Your task to perform on an android device: Find coffee shops on Maps Image 0: 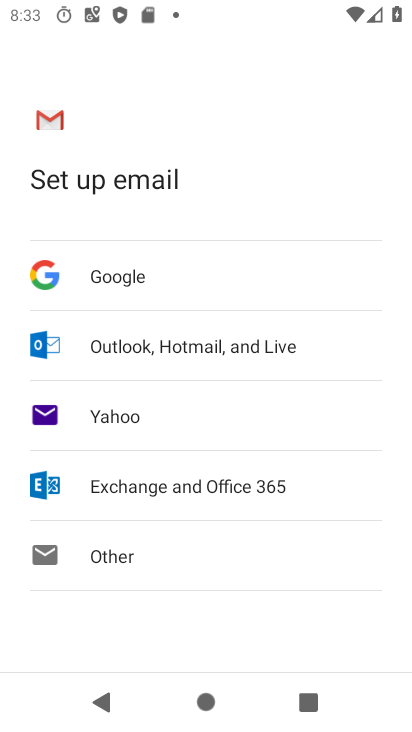
Step 0: press home button
Your task to perform on an android device: Find coffee shops on Maps Image 1: 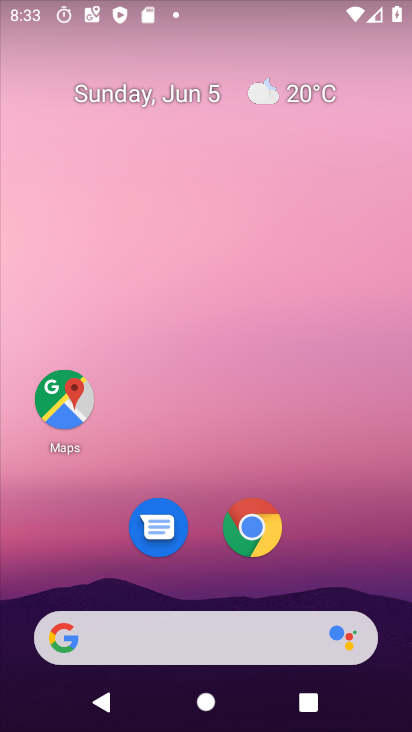
Step 1: drag from (327, 554) to (376, 58)
Your task to perform on an android device: Find coffee shops on Maps Image 2: 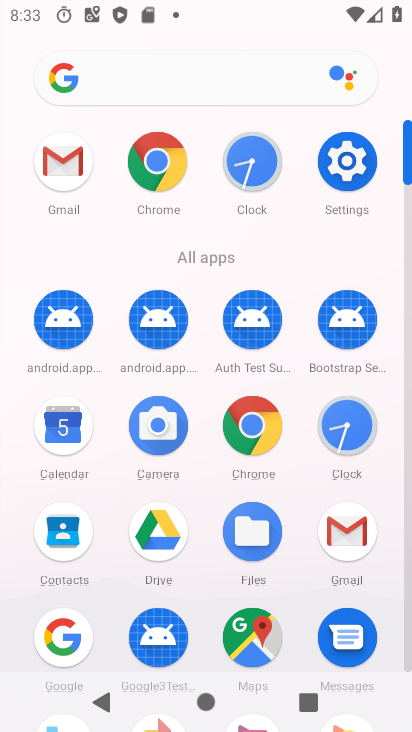
Step 2: click (255, 651)
Your task to perform on an android device: Find coffee shops on Maps Image 3: 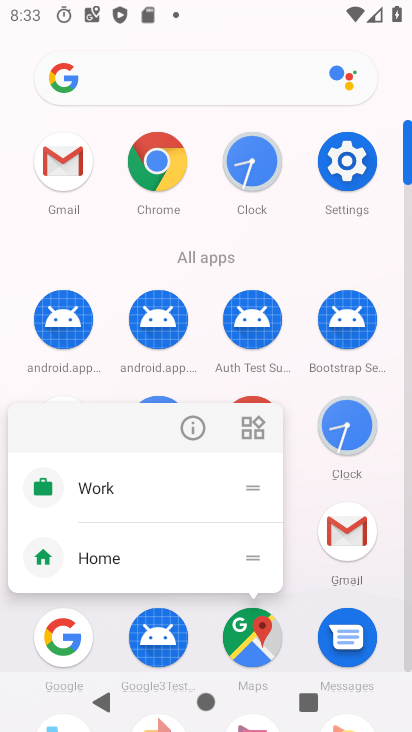
Step 3: click (255, 648)
Your task to perform on an android device: Find coffee shops on Maps Image 4: 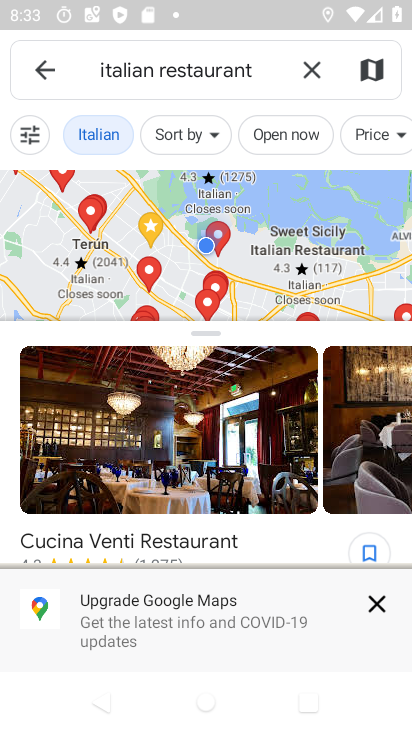
Step 4: click (312, 47)
Your task to perform on an android device: Find coffee shops on Maps Image 5: 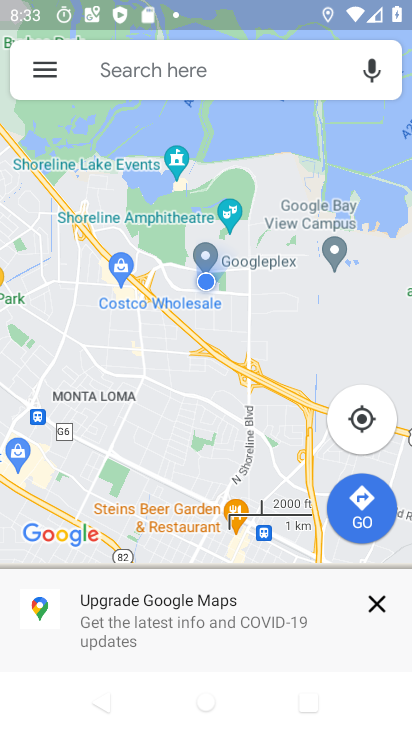
Step 5: click (272, 84)
Your task to perform on an android device: Find coffee shops on Maps Image 6: 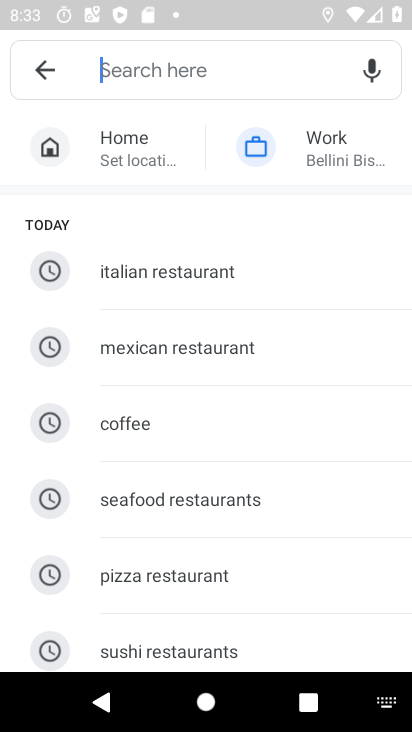
Step 6: click (133, 431)
Your task to perform on an android device: Find coffee shops on Maps Image 7: 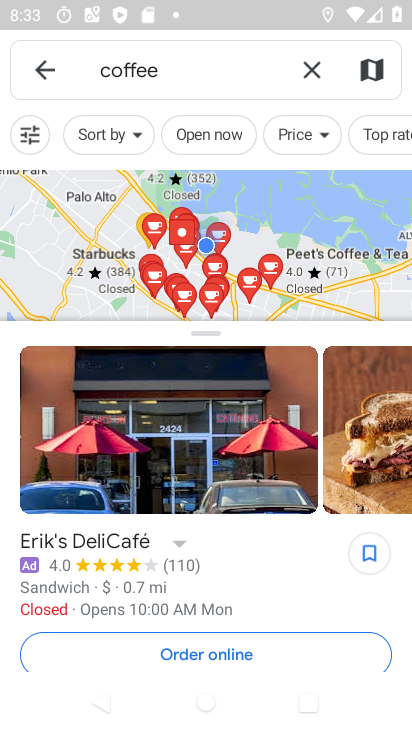
Step 7: task complete